Your task to perform on an android device: open app "Messages" (install if not already installed) and enter user name: "Hersey@inbox.com" and password: "facings" Image 0: 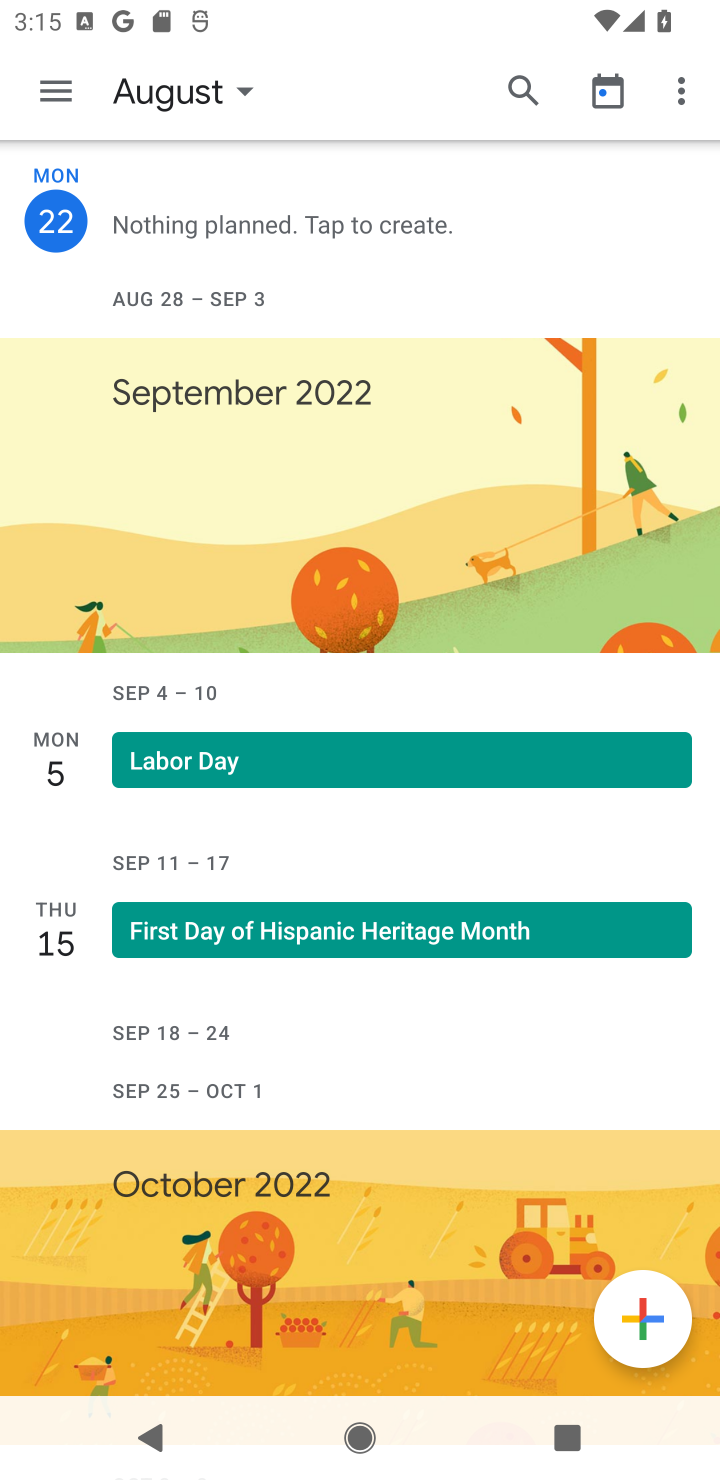
Step 0: press home button
Your task to perform on an android device: open app "Messages" (install if not already installed) and enter user name: "Hersey@inbox.com" and password: "facings" Image 1: 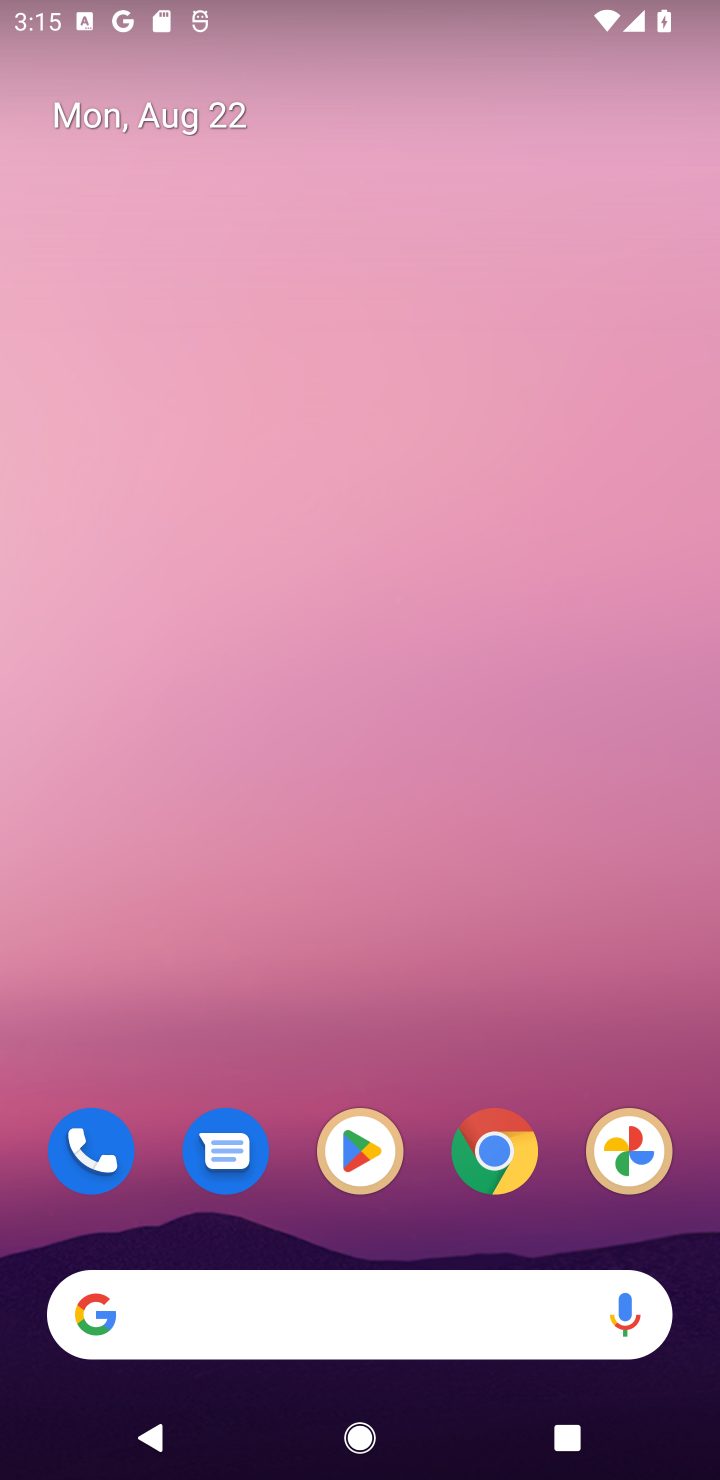
Step 1: click (354, 1152)
Your task to perform on an android device: open app "Messages" (install if not already installed) and enter user name: "Hersey@inbox.com" and password: "facings" Image 2: 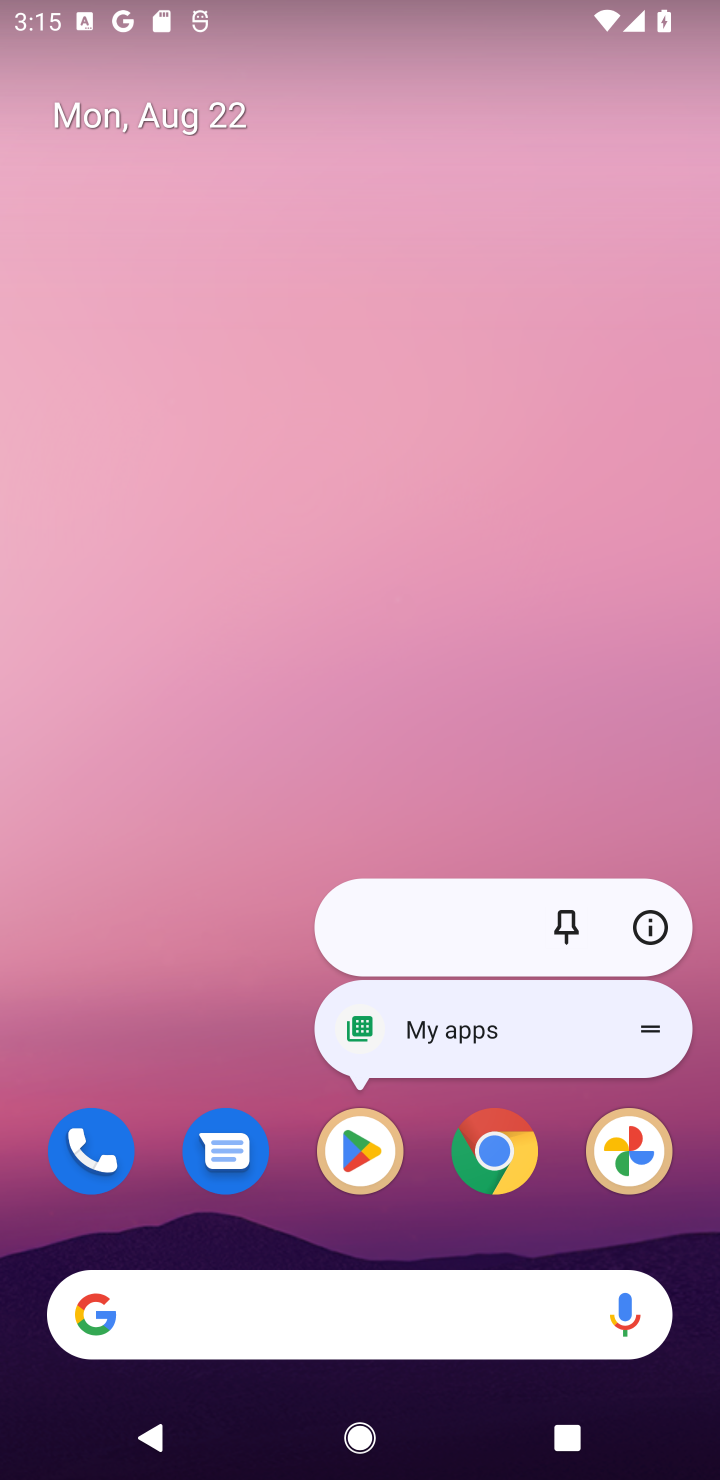
Step 2: click (354, 1156)
Your task to perform on an android device: open app "Messages" (install if not already installed) and enter user name: "Hersey@inbox.com" and password: "facings" Image 3: 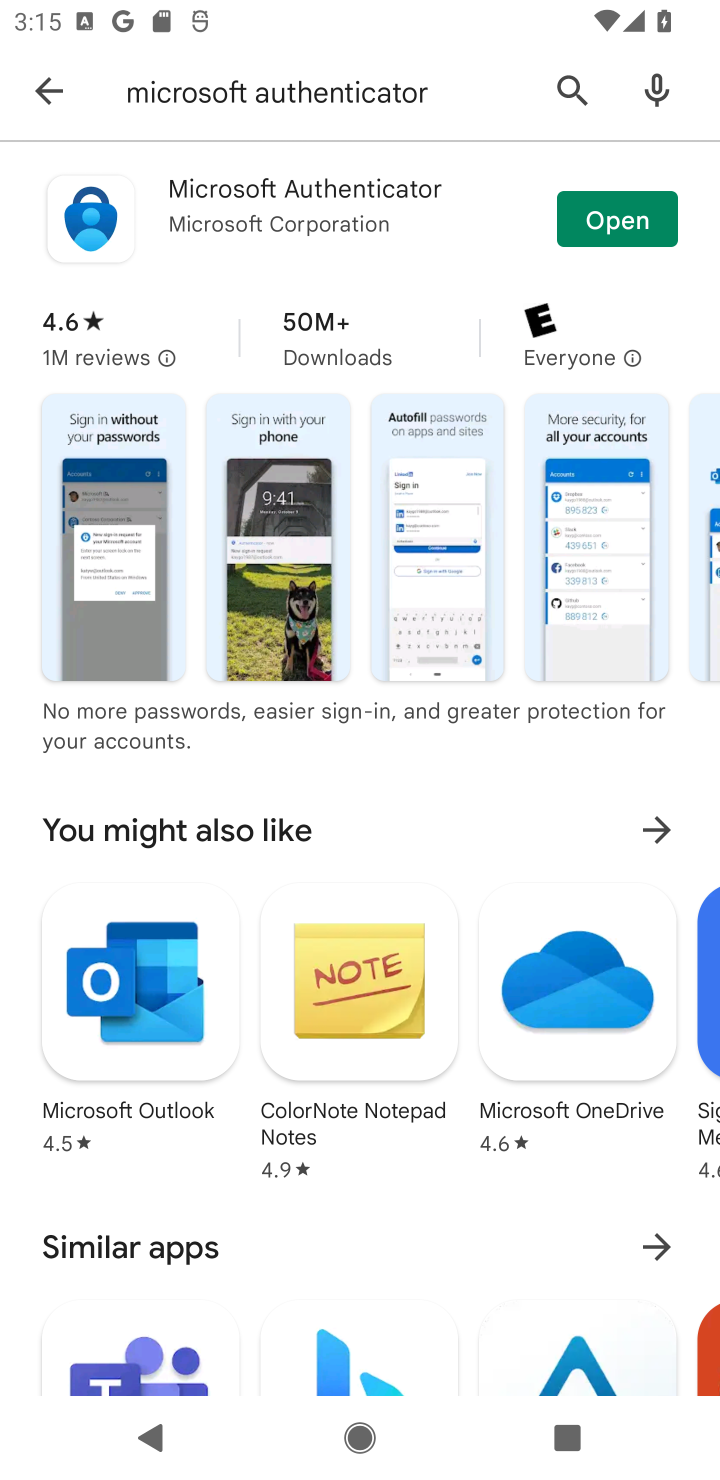
Step 3: click (566, 79)
Your task to perform on an android device: open app "Messages" (install if not already installed) and enter user name: "Hersey@inbox.com" and password: "facings" Image 4: 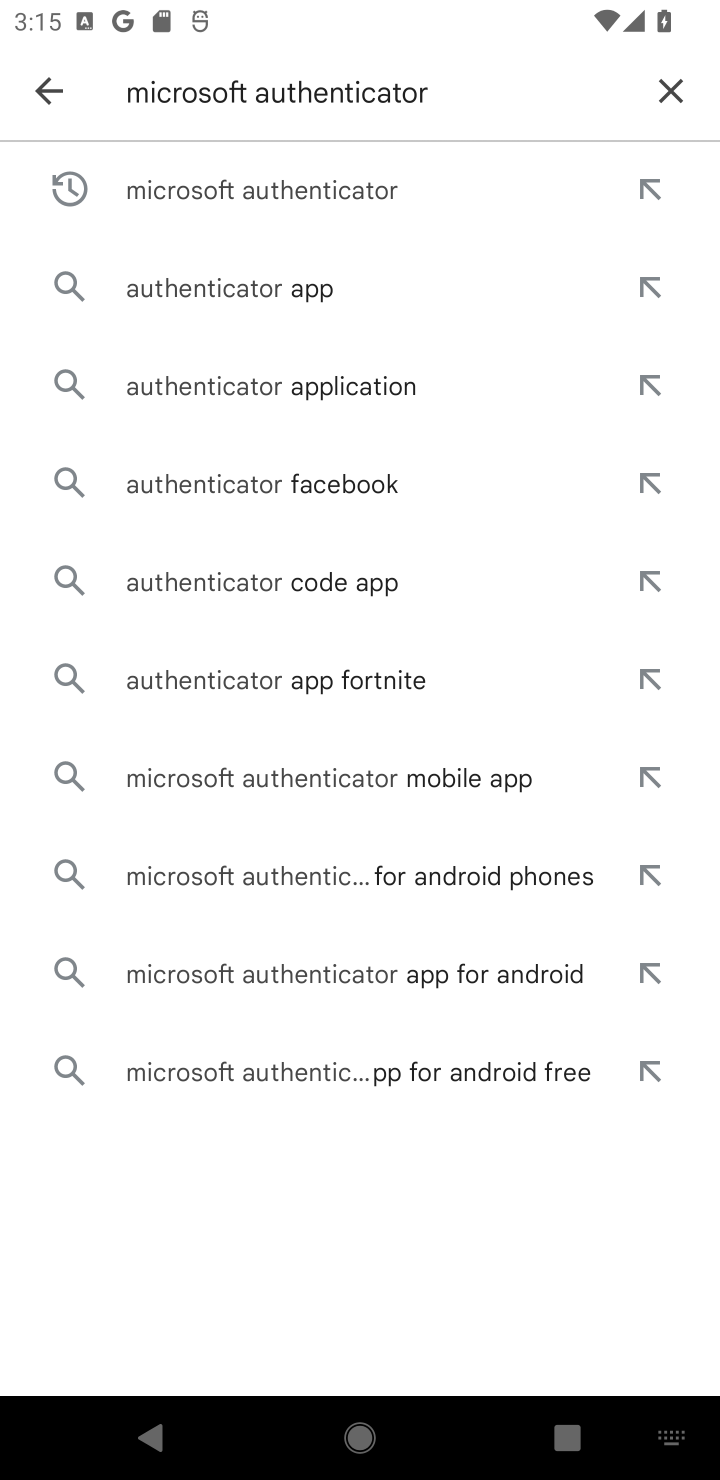
Step 4: click (653, 85)
Your task to perform on an android device: open app "Messages" (install if not already installed) and enter user name: "Hersey@inbox.com" and password: "facings" Image 5: 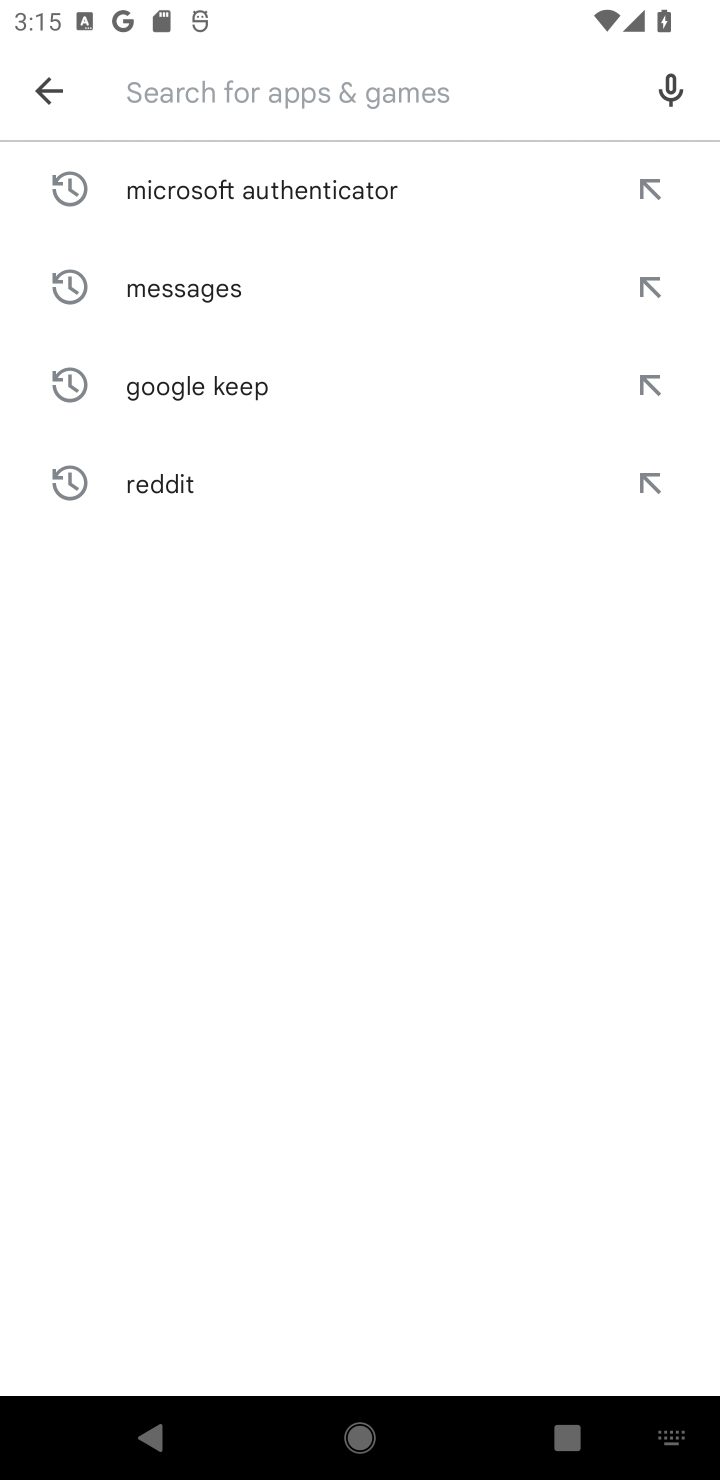
Step 5: type "Messages"
Your task to perform on an android device: open app "Messages" (install if not already installed) and enter user name: "Hersey@inbox.com" and password: "facings" Image 6: 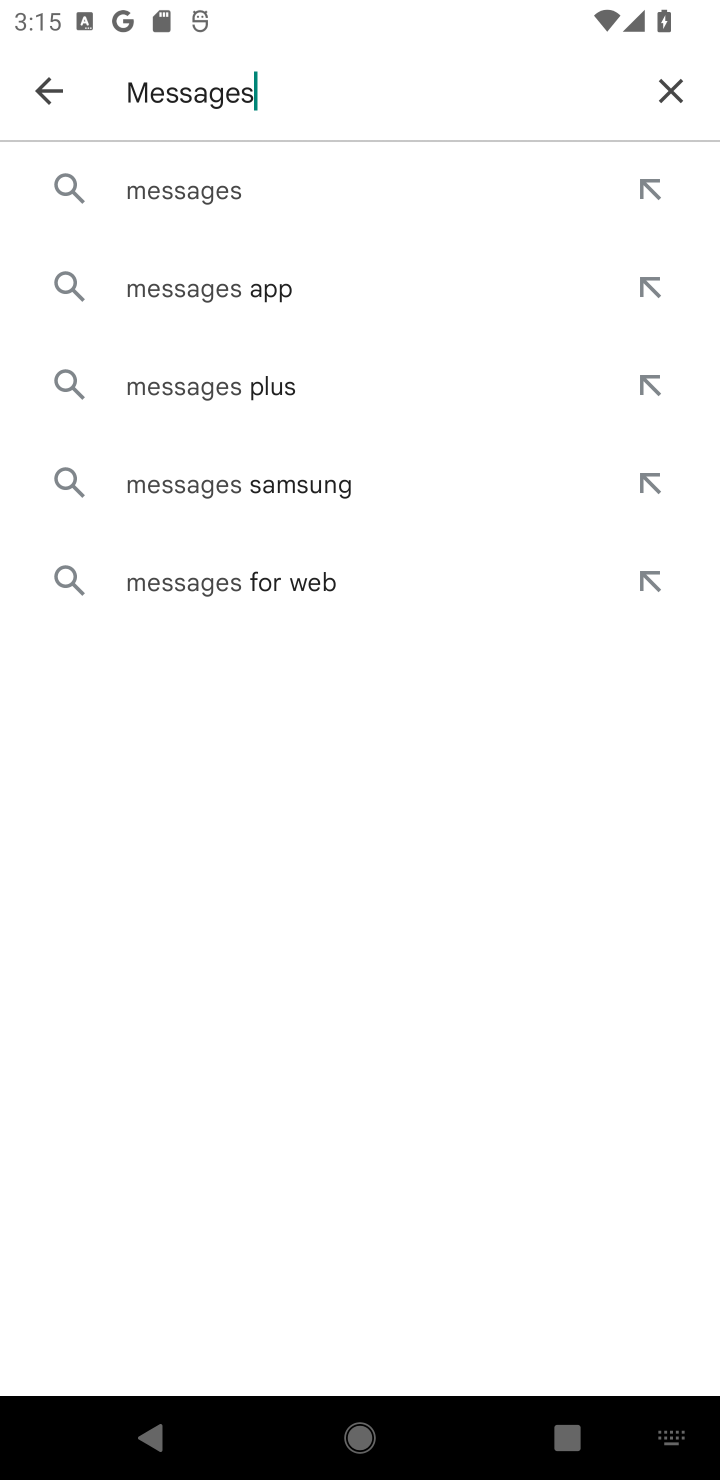
Step 6: click (228, 175)
Your task to perform on an android device: open app "Messages" (install if not already installed) and enter user name: "Hersey@inbox.com" and password: "facings" Image 7: 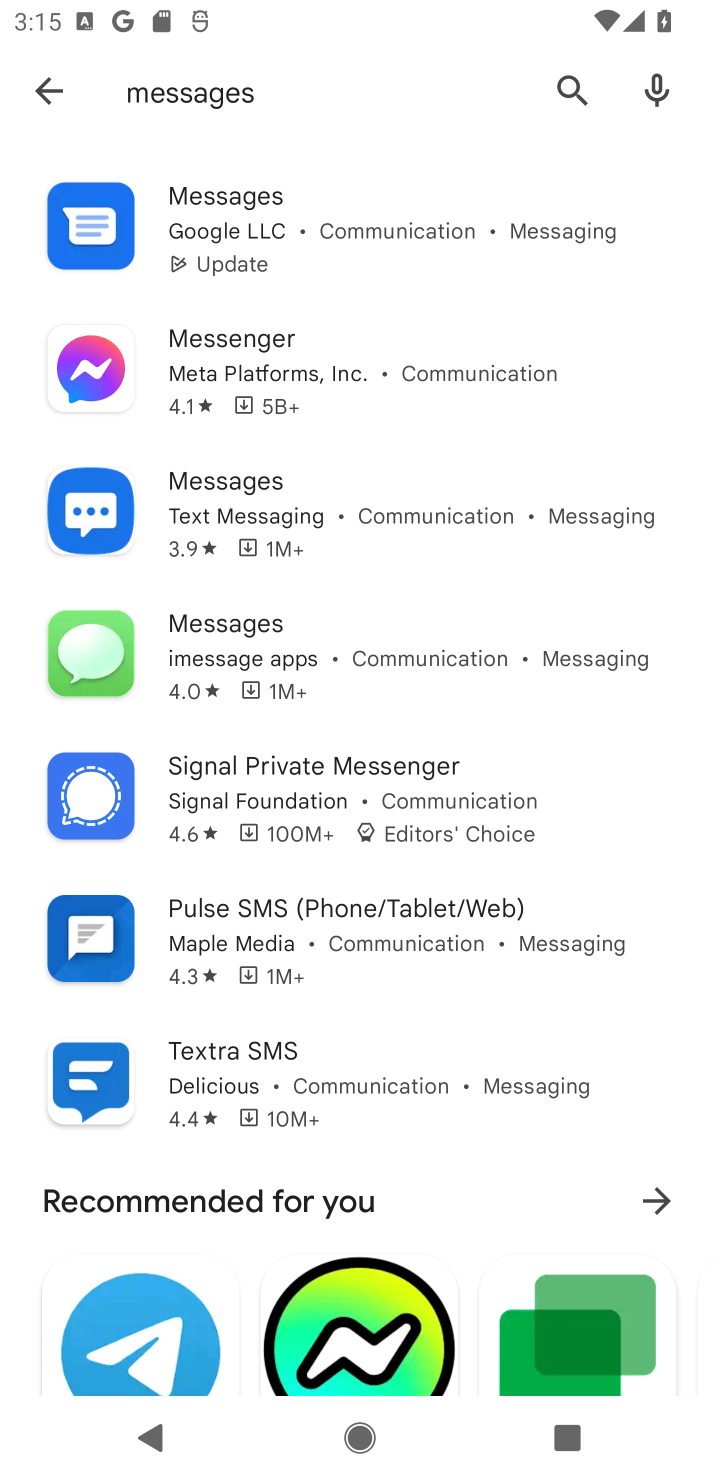
Step 7: click (203, 229)
Your task to perform on an android device: open app "Messages" (install if not already installed) and enter user name: "Hersey@inbox.com" and password: "facings" Image 8: 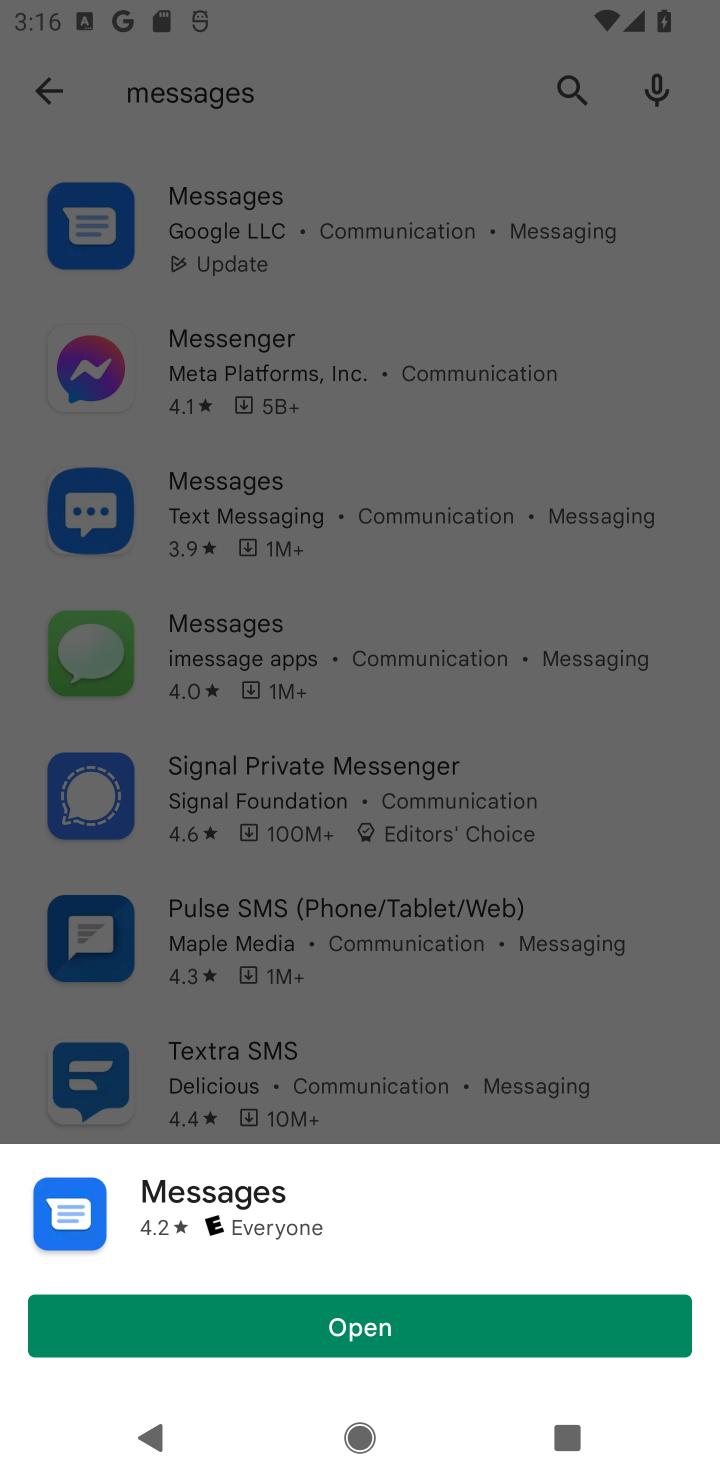
Step 8: click (378, 1331)
Your task to perform on an android device: open app "Messages" (install if not already installed) and enter user name: "Hersey@inbox.com" and password: "facings" Image 9: 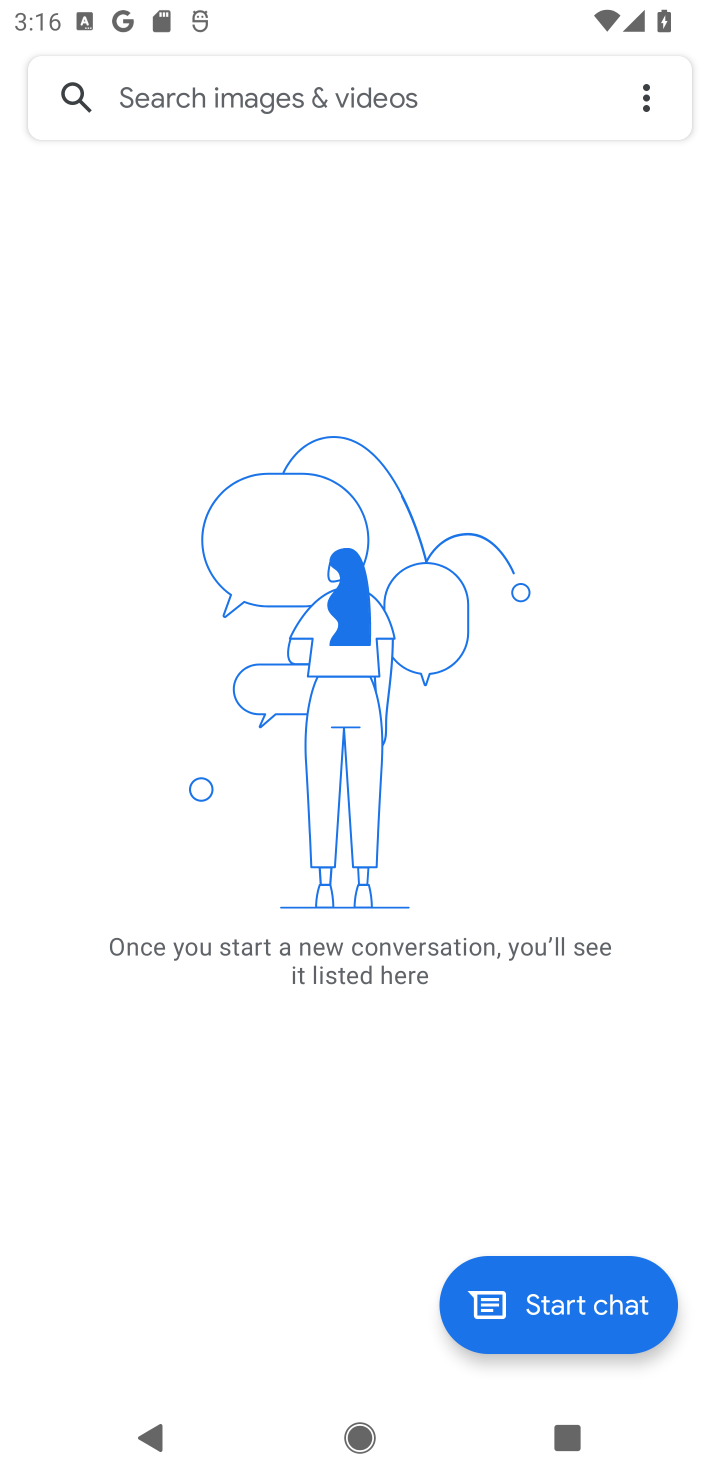
Step 9: task complete